Your task to perform on an android device: turn vacation reply on in the gmail app Image 0: 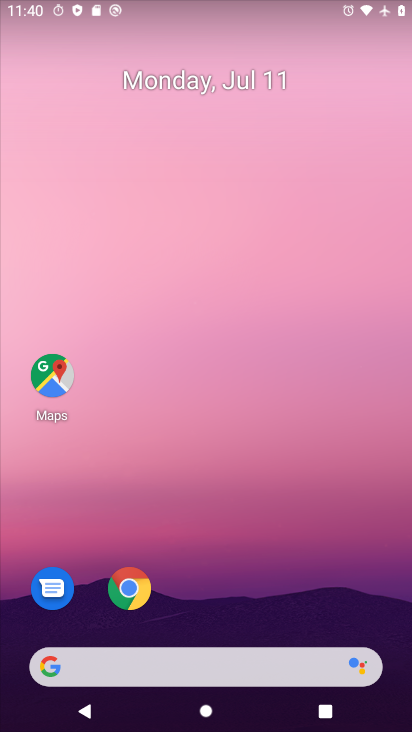
Step 0: drag from (126, 659) to (255, 167)
Your task to perform on an android device: turn vacation reply on in the gmail app Image 1: 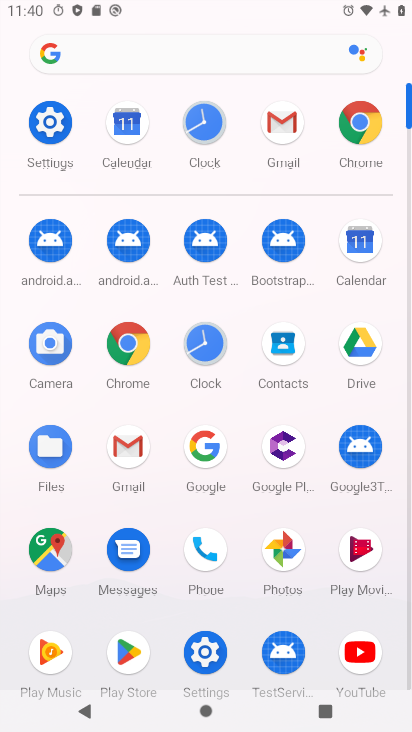
Step 1: click (274, 116)
Your task to perform on an android device: turn vacation reply on in the gmail app Image 2: 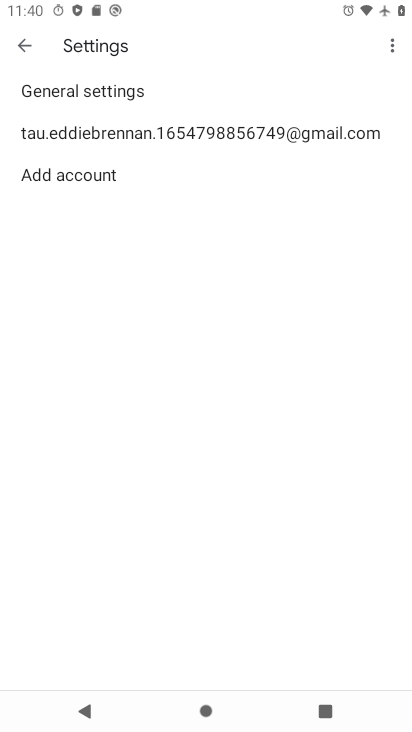
Step 2: click (256, 135)
Your task to perform on an android device: turn vacation reply on in the gmail app Image 3: 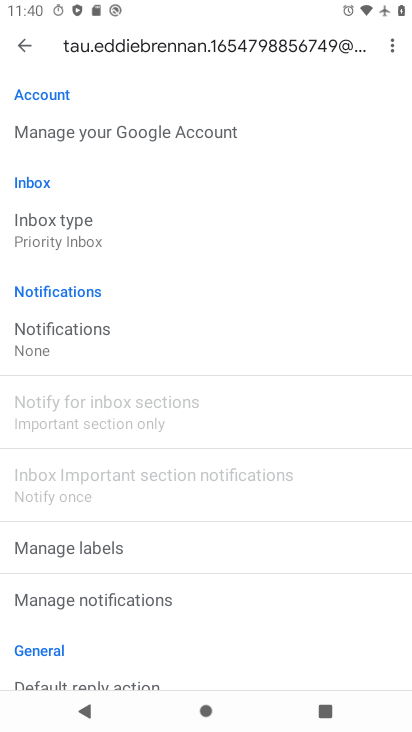
Step 3: drag from (201, 592) to (317, 84)
Your task to perform on an android device: turn vacation reply on in the gmail app Image 4: 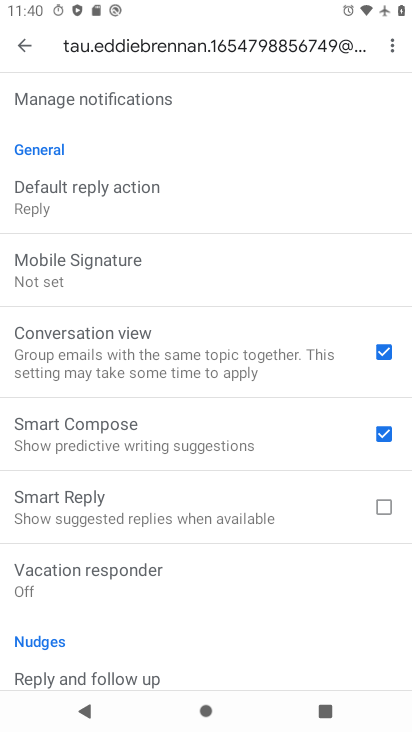
Step 4: click (139, 574)
Your task to perform on an android device: turn vacation reply on in the gmail app Image 5: 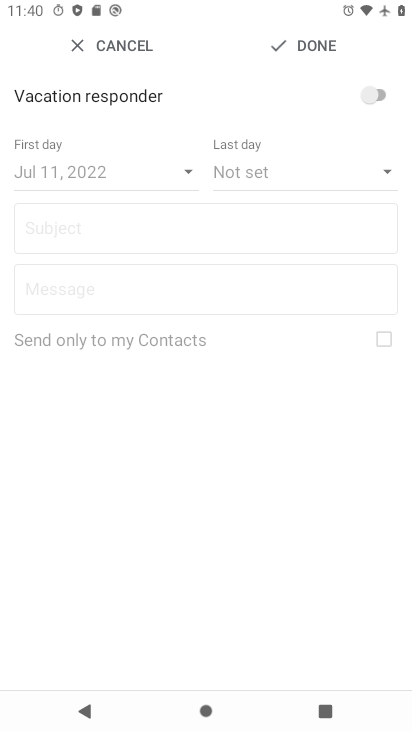
Step 5: click (377, 91)
Your task to perform on an android device: turn vacation reply on in the gmail app Image 6: 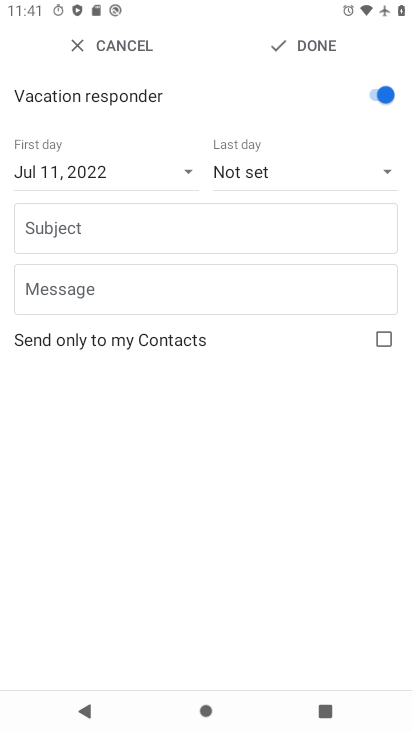
Step 6: task complete